Your task to perform on an android device: turn vacation reply on in the gmail app Image 0: 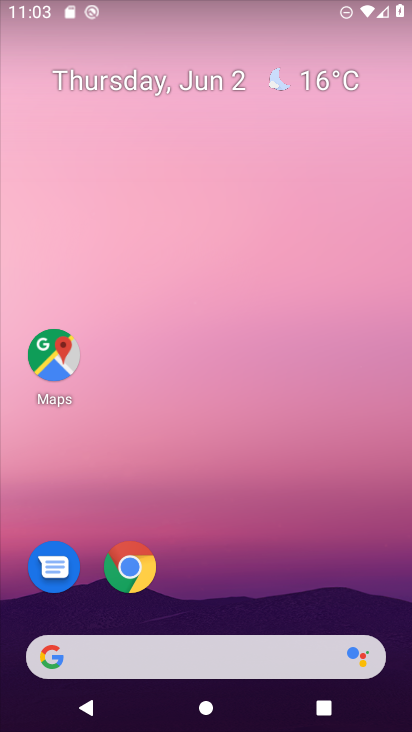
Step 0: drag from (288, 527) to (174, 182)
Your task to perform on an android device: turn vacation reply on in the gmail app Image 1: 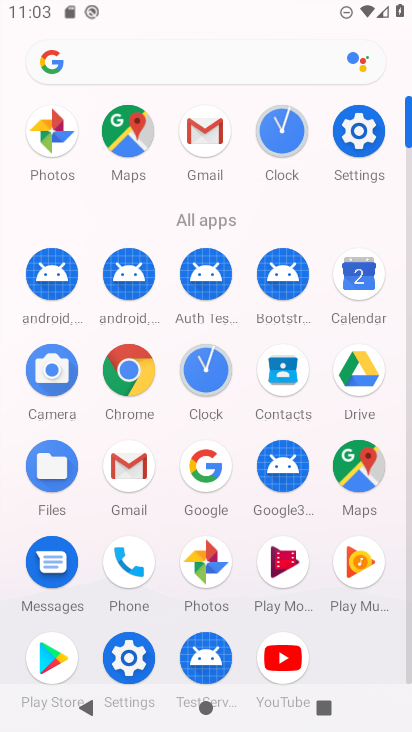
Step 1: click (203, 130)
Your task to perform on an android device: turn vacation reply on in the gmail app Image 2: 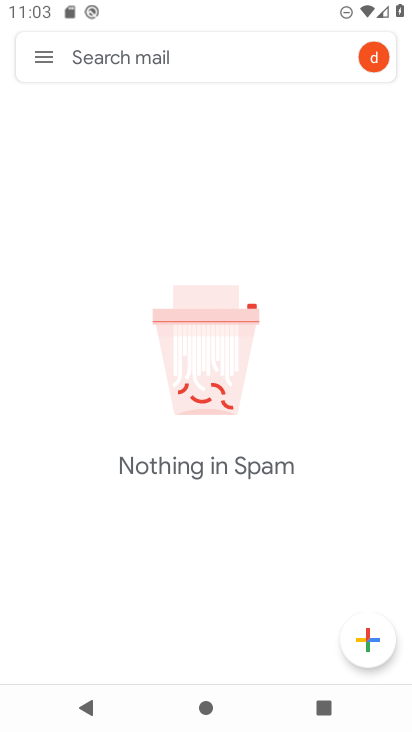
Step 2: click (36, 43)
Your task to perform on an android device: turn vacation reply on in the gmail app Image 3: 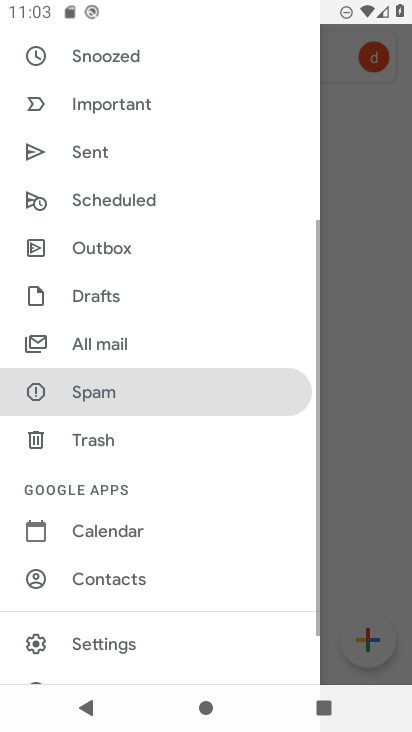
Step 3: drag from (169, 573) to (204, 143)
Your task to perform on an android device: turn vacation reply on in the gmail app Image 4: 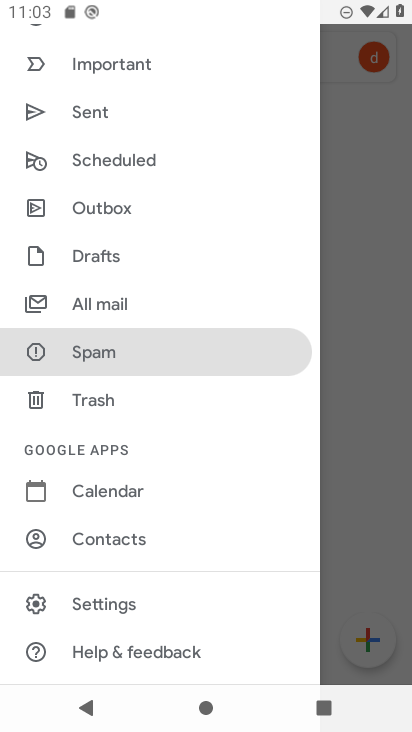
Step 4: click (83, 609)
Your task to perform on an android device: turn vacation reply on in the gmail app Image 5: 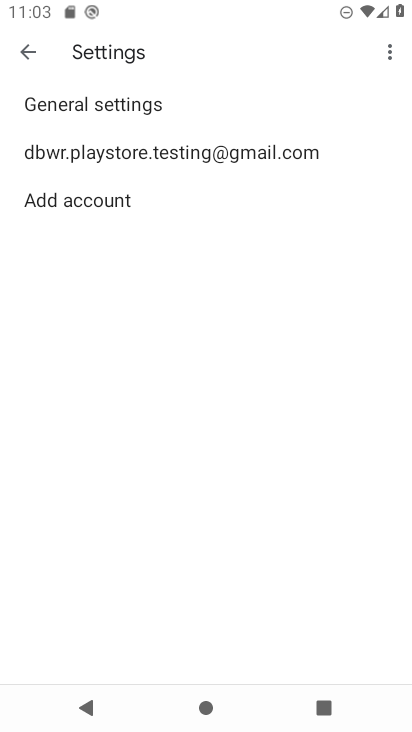
Step 5: click (192, 147)
Your task to perform on an android device: turn vacation reply on in the gmail app Image 6: 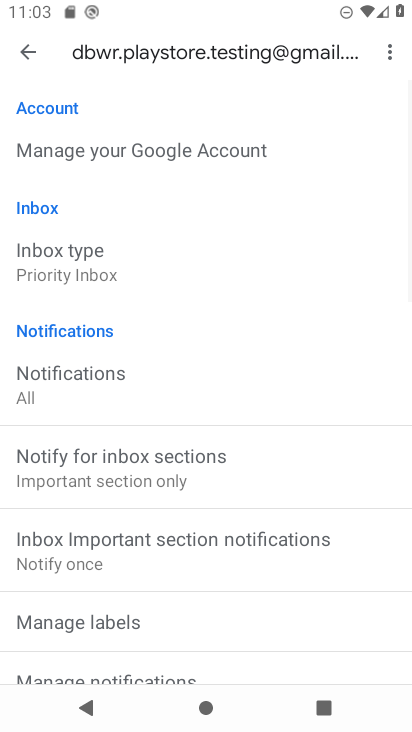
Step 6: click (85, 251)
Your task to perform on an android device: turn vacation reply on in the gmail app Image 7: 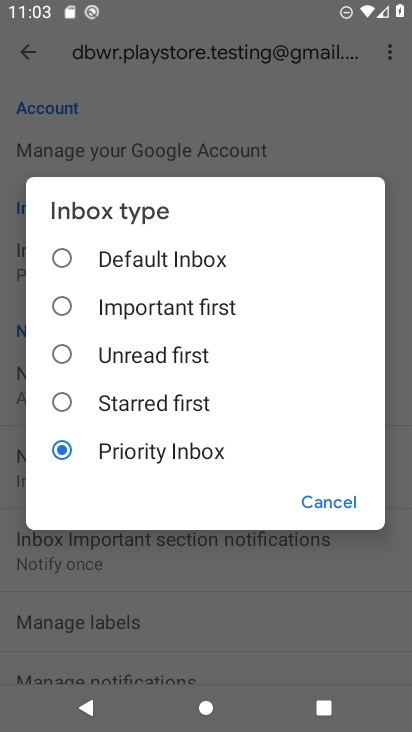
Step 7: click (260, 136)
Your task to perform on an android device: turn vacation reply on in the gmail app Image 8: 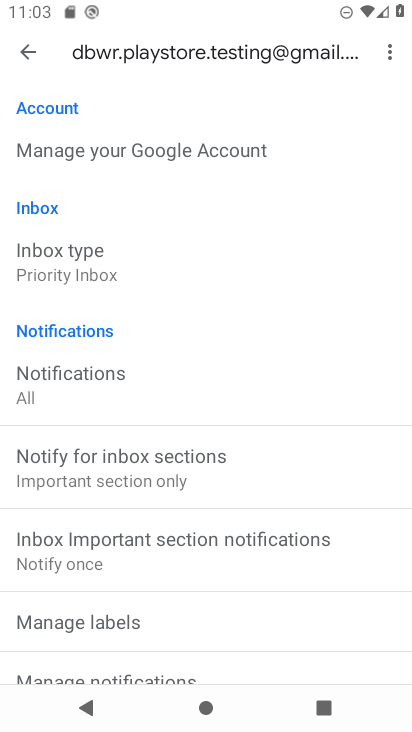
Step 8: drag from (250, 598) to (242, 40)
Your task to perform on an android device: turn vacation reply on in the gmail app Image 9: 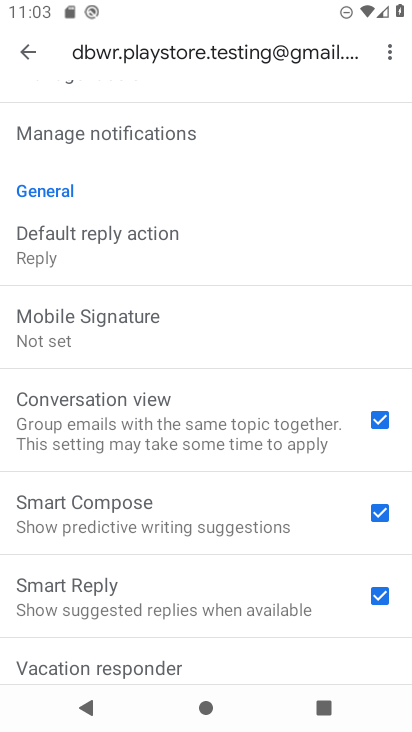
Step 9: drag from (237, 536) to (266, 258)
Your task to perform on an android device: turn vacation reply on in the gmail app Image 10: 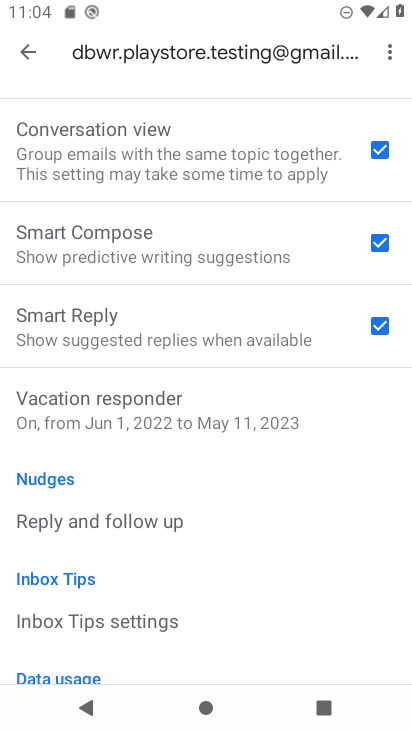
Step 10: click (146, 427)
Your task to perform on an android device: turn vacation reply on in the gmail app Image 11: 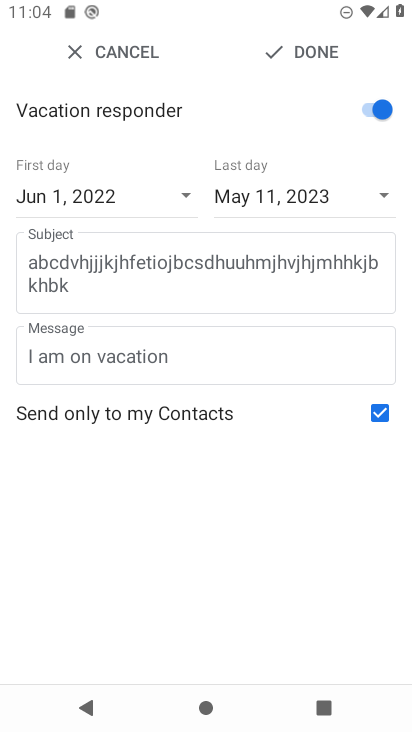
Step 11: task complete